Your task to perform on an android device: turn on location history Image 0: 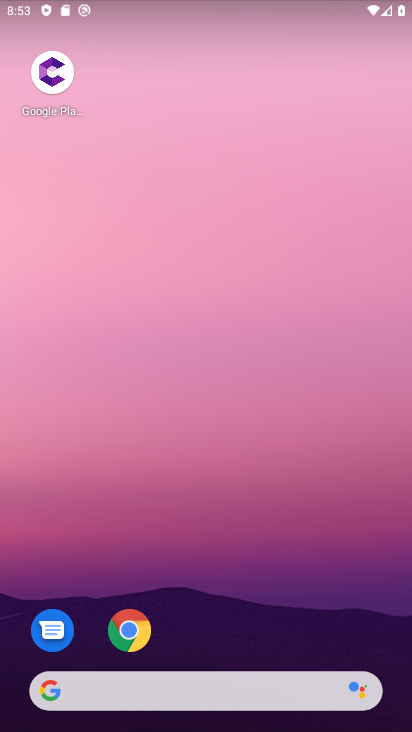
Step 0: drag from (269, 613) to (149, 57)
Your task to perform on an android device: turn on location history Image 1: 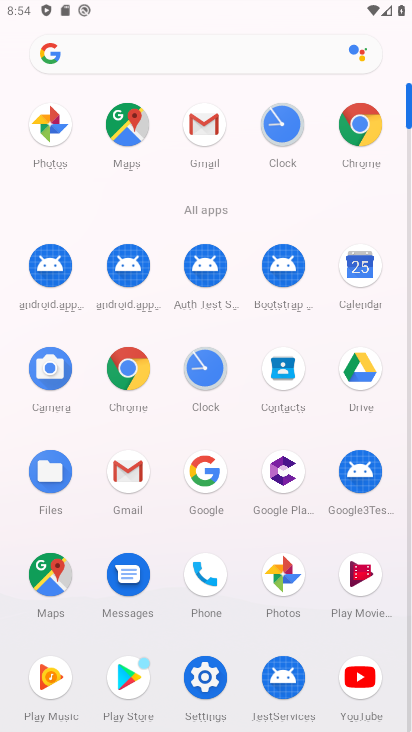
Step 1: click (200, 673)
Your task to perform on an android device: turn on location history Image 2: 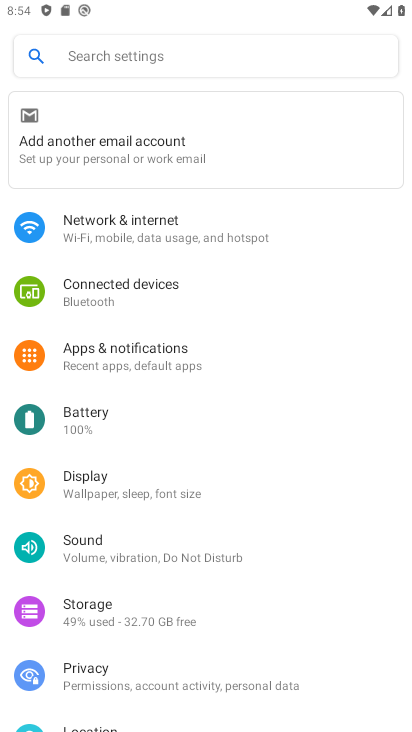
Step 2: drag from (95, 686) to (137, 329)
Your task to perform on an android device: turn on location history Image 3: 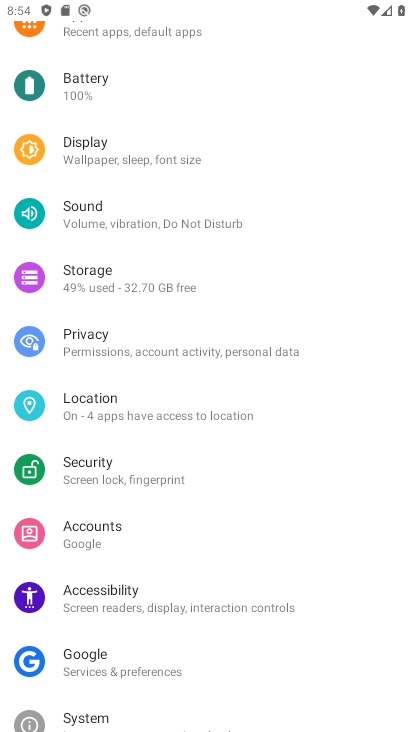
Step 3: click (119, 406)
Your task to perform on an android device: turn on location history Image 4: 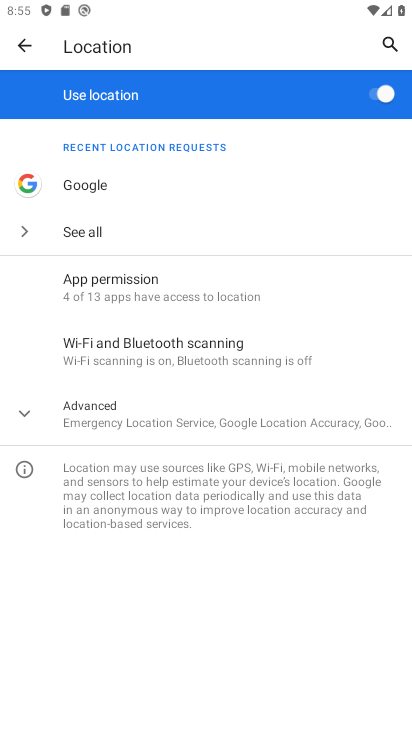
Step 4: click (104, 406)
Your task to perform on an android device: turn on location history Image 5: 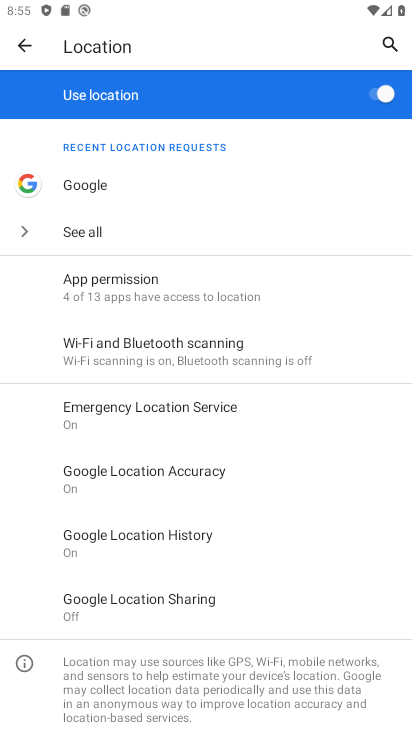
Step 5: click (125, 545)
Your task to perform on an android device: turn on location history Image 6: 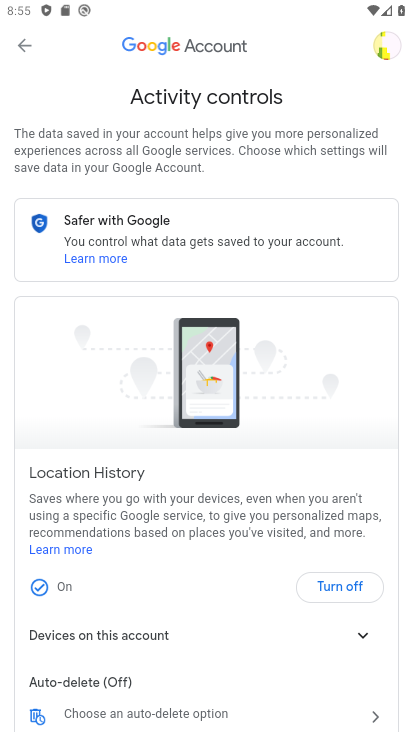
Step 6: task complete